Your task to perform on an android device: change the clock display to show seconds Image 0: 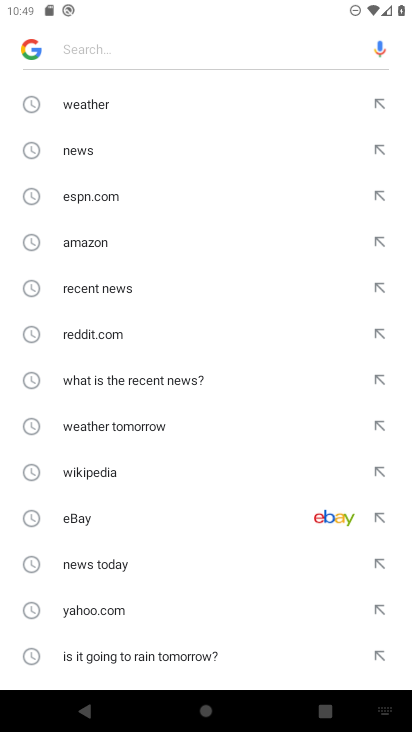
Step 0: press back button
Your task to perform on an android device: change the clock display to show seconds Image 1: 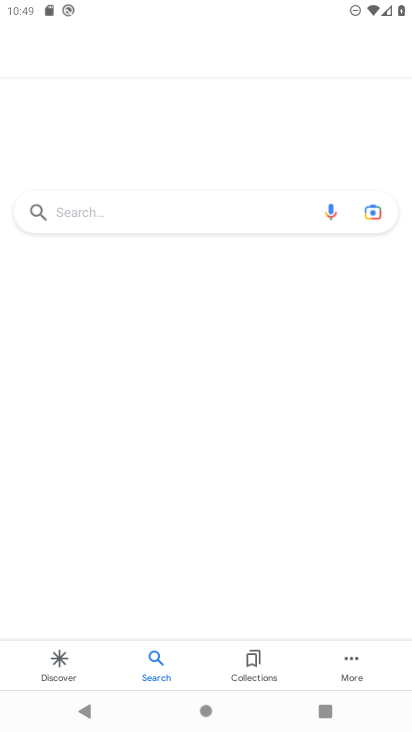
Step 1: press back button
Your task to perform on an android device: change the clock display to show seconds Image 2: 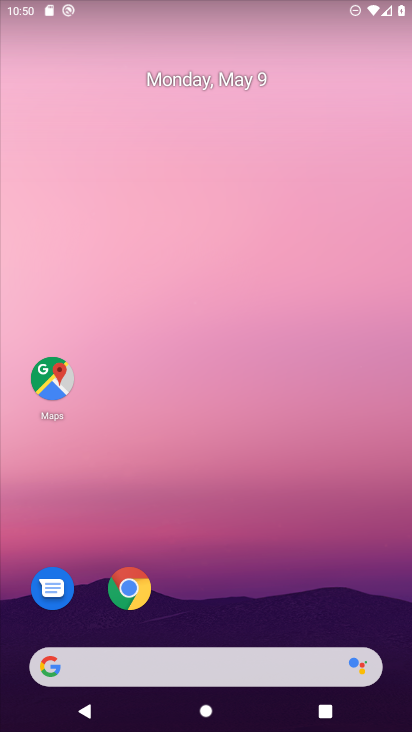
Step 2: drag from (328, 567) to (310, 100)
Your task to perform on an android device: change the clock display to show seconds Image 3: 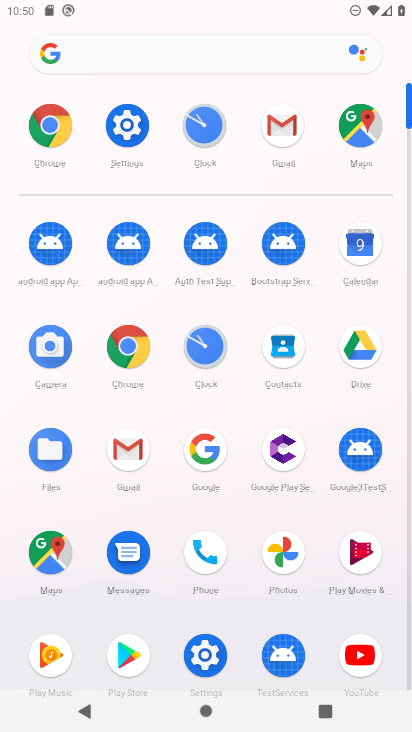
Step 3: click (118, 114)
Your task to perform on an android device: change the clock display to show seconds Image 4: 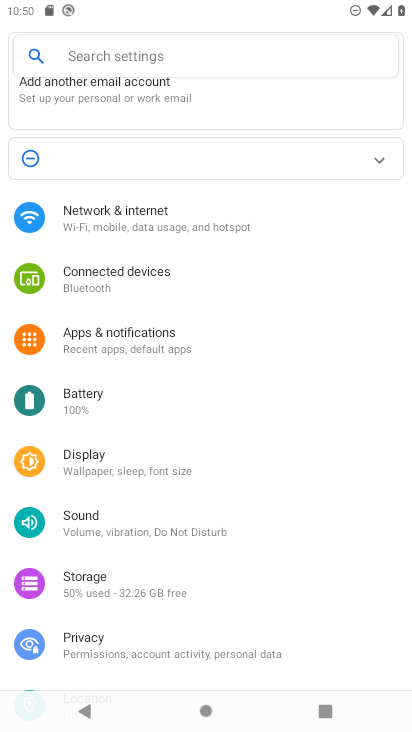
Step 4: press home button
Your task to perform on an android device: change the clock display to show seconds Image 5: 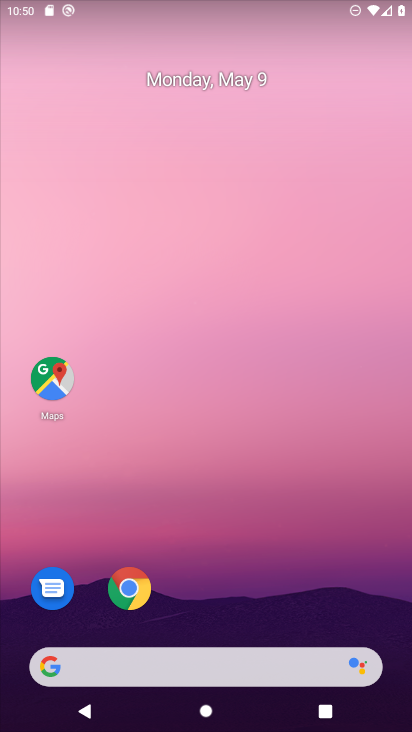
Step 5: drag from (242, 593) to (233, 14)
Your task to perform on an android device: change the clock display to show seconds Image 6: 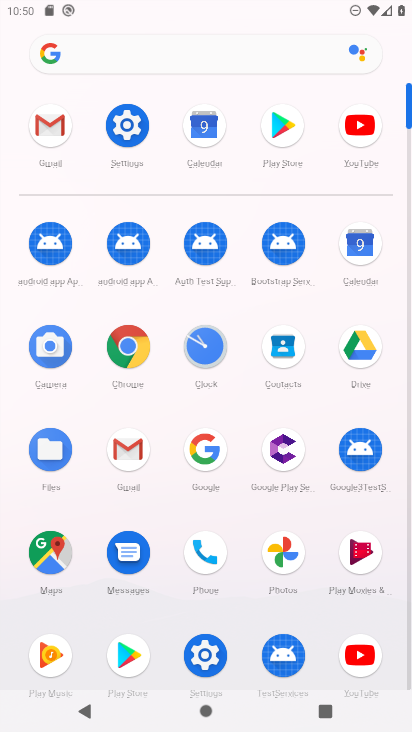
Step 6: click (212, 339)
Your task to perform on an android device: change the clock display to show seconds Image 7: 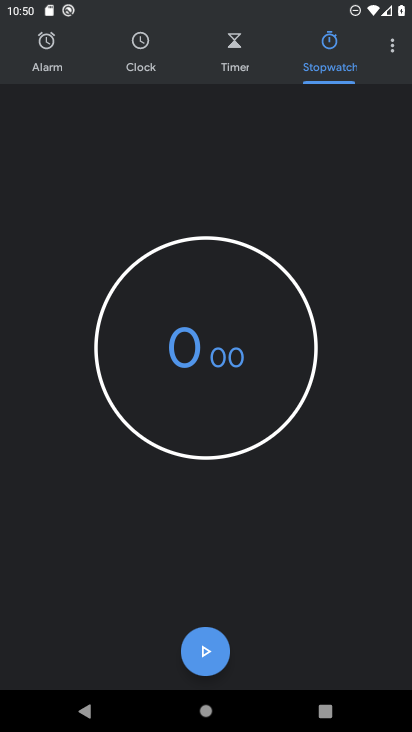
Step 7: click (384, 52)
Your task to perform on an android device: change the clock display to show seconds Image 8: 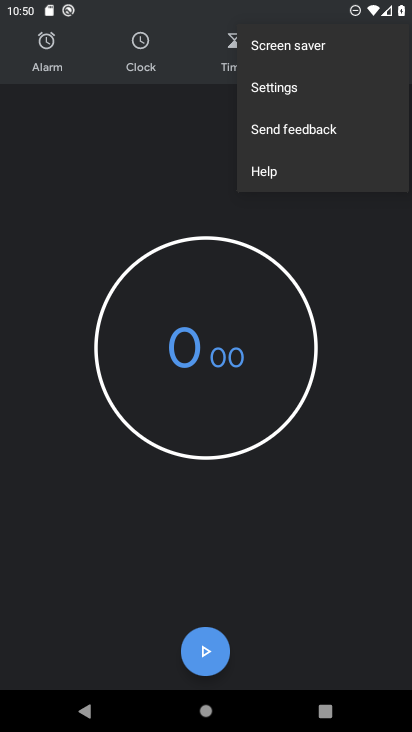
Step 8: click (296, 92)
Your task to perform on an android device: change the clock display to show seconds Image 9: 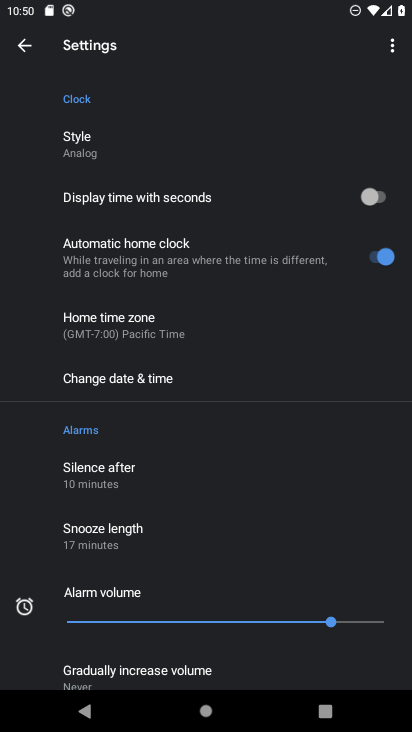
Step 9: click (351, 194)
Your task to perform on an android device: change the clock display to show seconds Image 10: 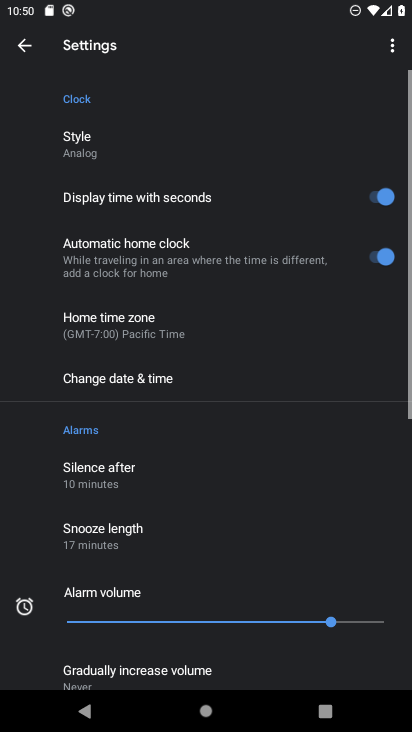
Step 10: task complete